Your task to perform on an android device: Open Android settings Image 0: 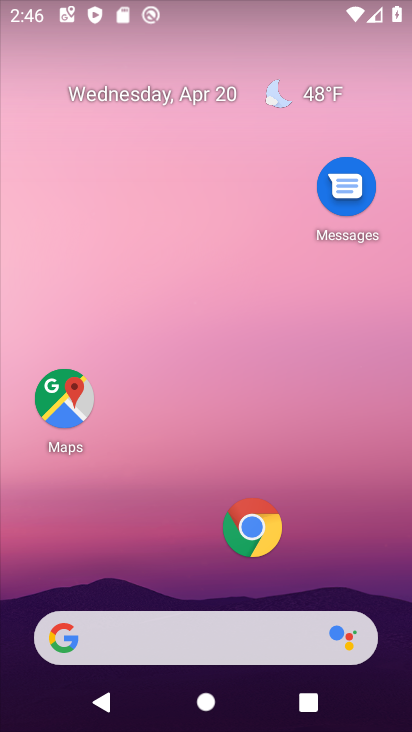
Step 0: drag from (239, 609) to (308, 47)
Your task to perform on an android device: Open Android settings Image 1: 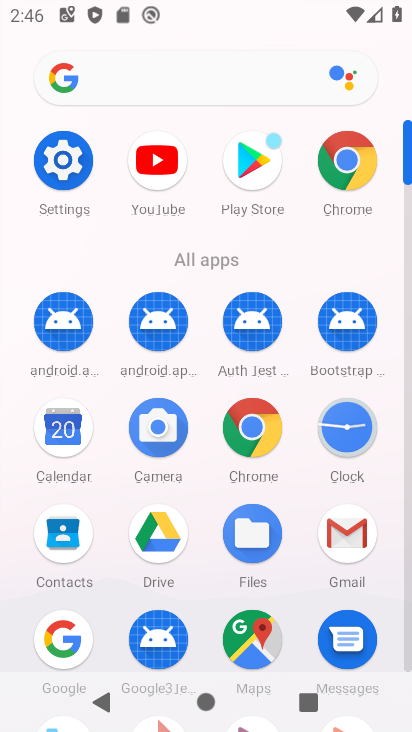
Step 1: click (72, 160)
Your task to perform on an android device: Open Android settings Image 2: 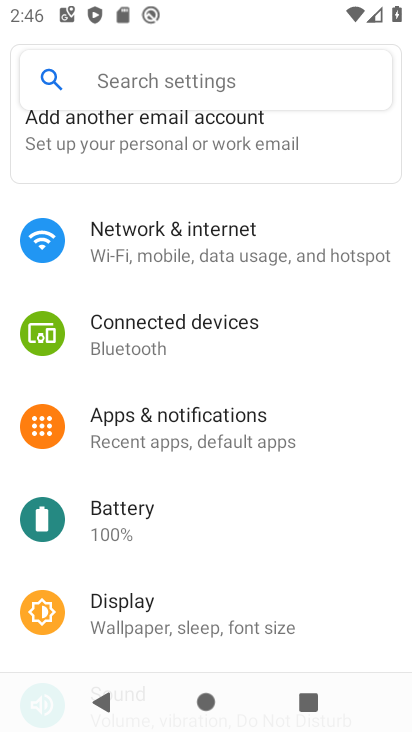
Step 2: drag from (195, 604) to (330, 98)
Your task to perform on an android device: Open Android settings Image 3: 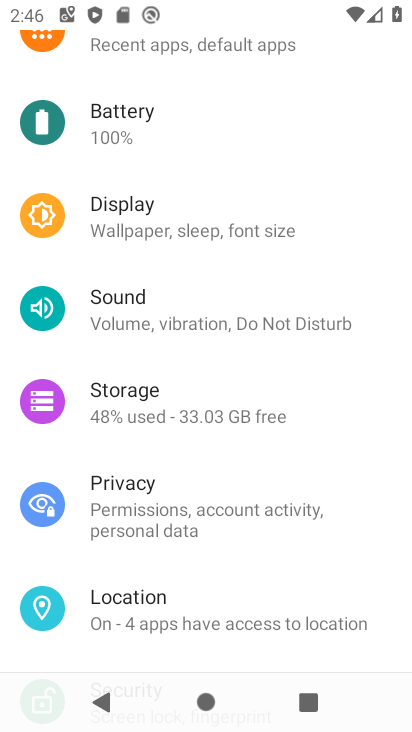
Step 3: drag from (206, 593) to (271, 37)
Your task to perform on an android device: Open Android settings Image 4: 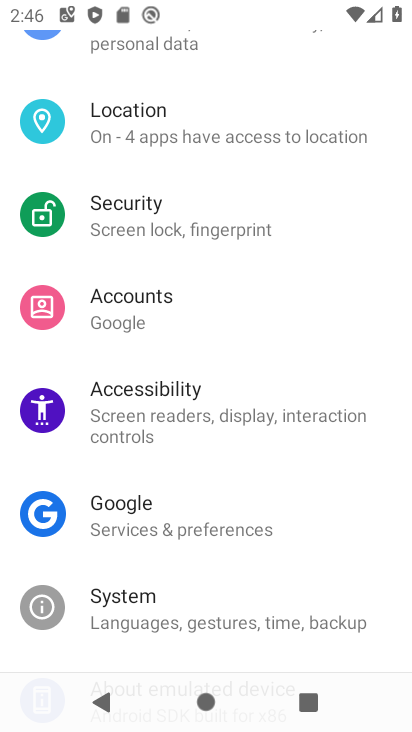
Step 4: drag from (226, 576) to (272, 85)
Your task to perform on an android device: Open Android settings Image 5: 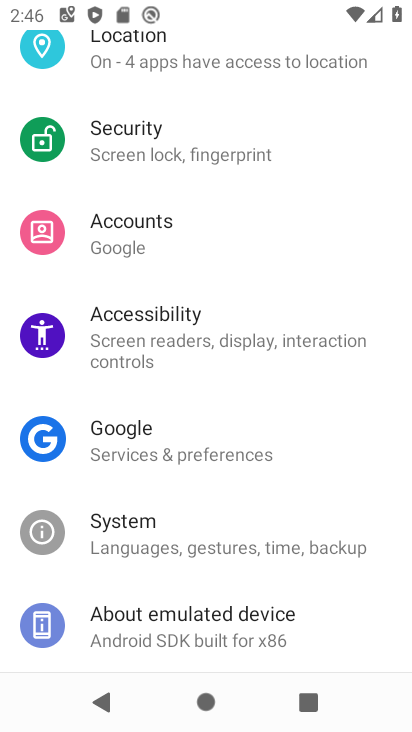
Step 5: click (177, 609)
Your task to perform on an android device: Open Android settings Image 6: 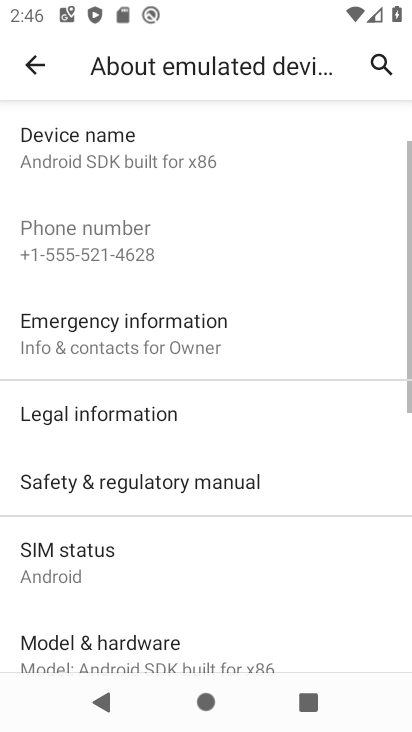
Step 6: drag from (189, 594) to (269, 176)
Your task to perform on an android device: Open Android settings Image 7: 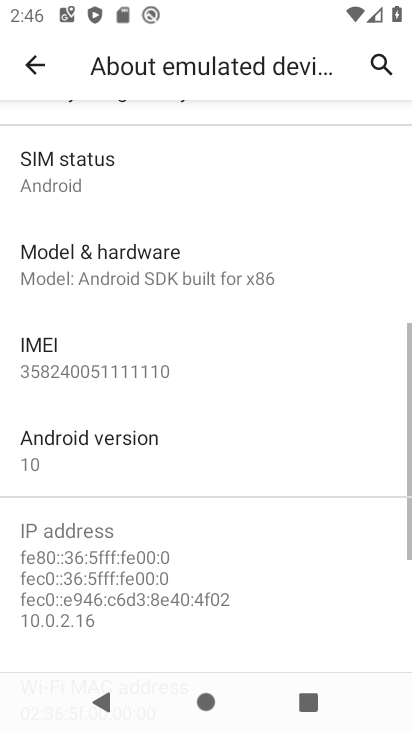
Step 7: click (62, 439)
Your task to perform on an android device: Open Android settings Image 8: 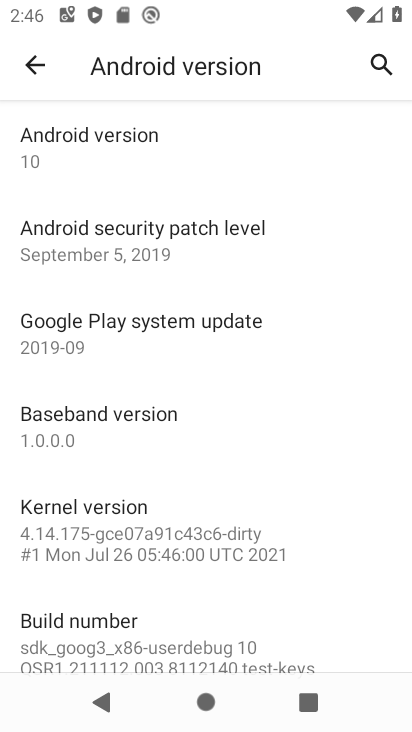
Step 8: task complete